Your task to perform on an android device: When is my next appointment? Image 0: 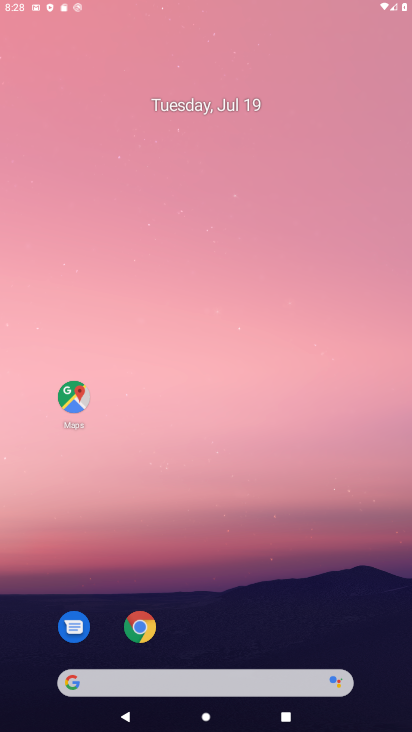
Step 0: press home button
Your task to perform on an android device: When is my next appointment? Image 1: 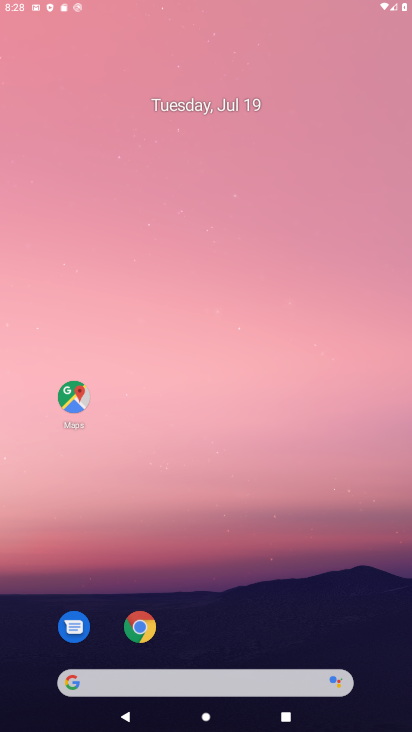
Step 1: click (232, 24)
Your task to perform on an android device: When is my next appointment? Image 2: 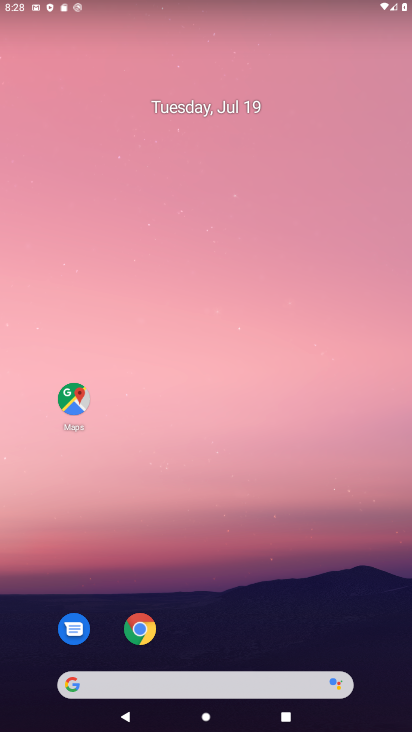
Step 2: drag from (211, 529) to (188, 15)
Your task to perform on an android device: When is my next appointment? Image 3: 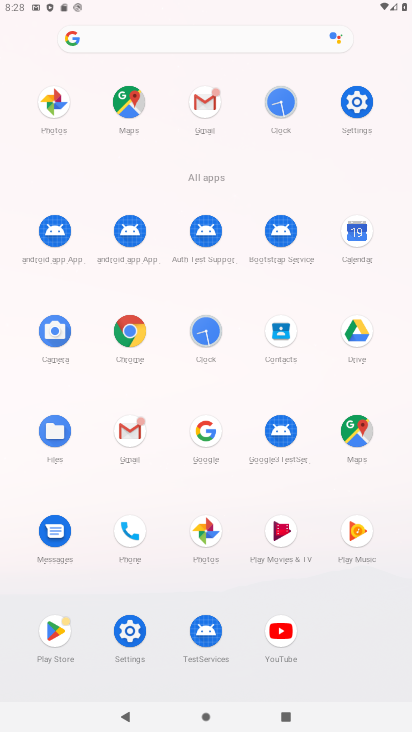
Step 3: click (354, 238)
Your task to perform on an android device: When is my next appointment? Image 4: 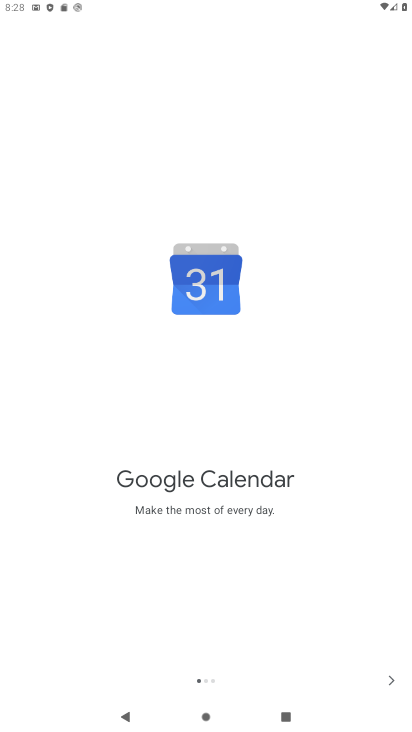
Step 4: click (388, 681)
Your task to perform on an android device: When is my next appointment? Image 5: 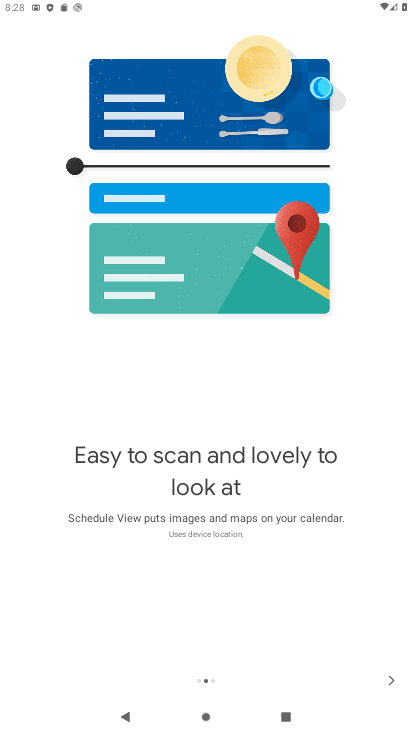
Step 5: click (392, 673)
Your task to perform on an android device: When is my next appointment? Image 6: 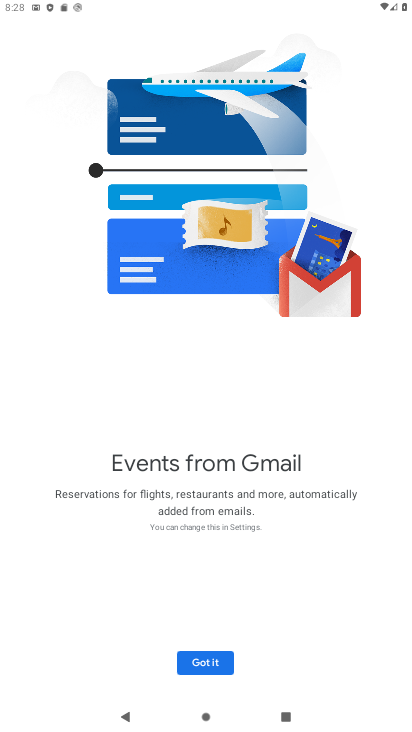
Step 6: click (203, 659)
Your task to perform on an android device: When is my next appointment? Image 7: 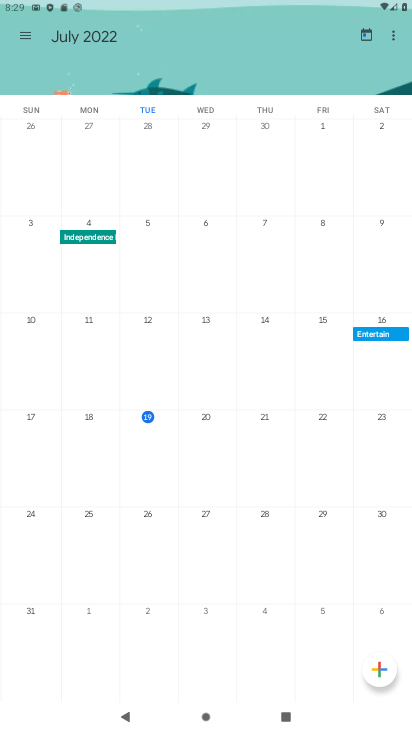
Step 7: click (21, 30)
Your task to perform on an android device: When is my next appointment? Image 8: 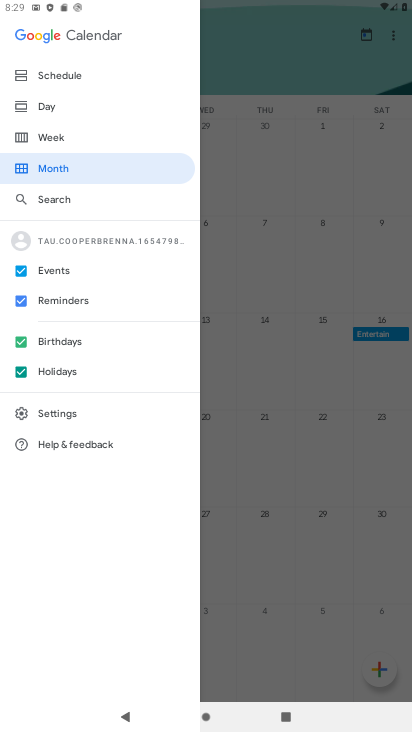
Step 8: click (52, 137)
Your task to perform on an android device: When is my next appointment? Image 9: 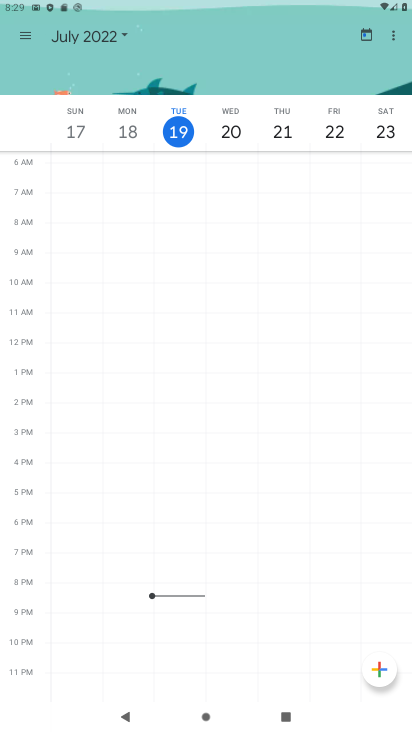
Step 9: click (181, 134)
Your task to perform on an android device: When is my next appointment? Image 10: 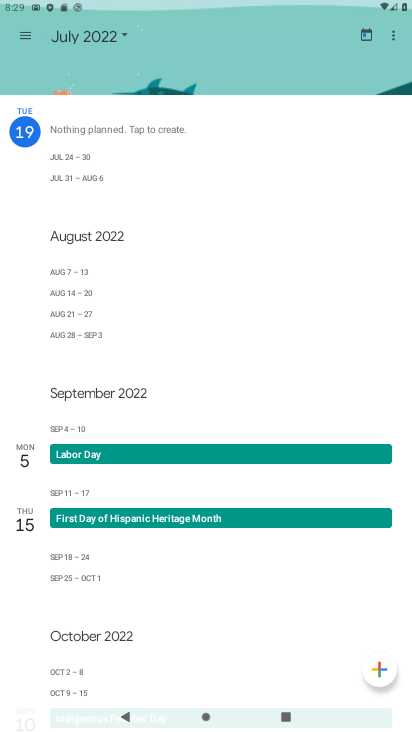
Step 10: task complete